Your task to perform on an android device: Go to accessibility settings Image 0: 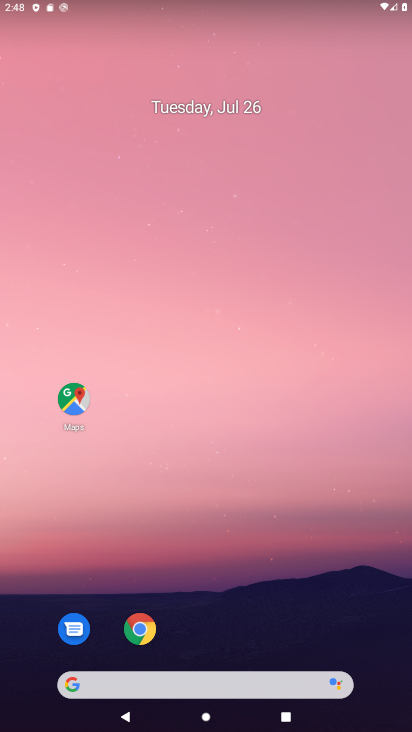
Step 0: press home button
Your task to perform on an android device: Go to accessibility settings Image 1: 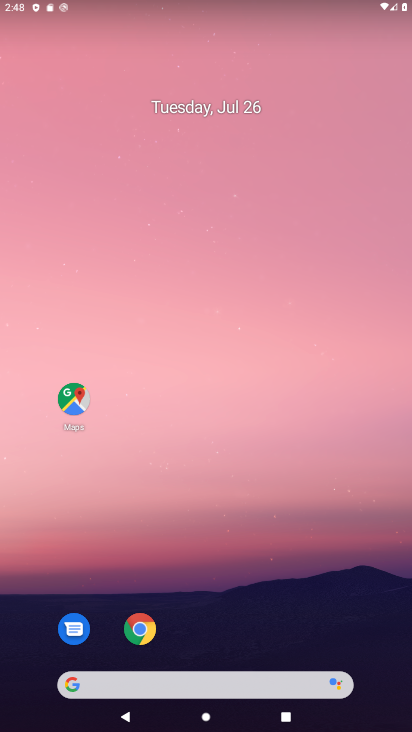
Step 1: drag from (330, 611) to (213, 7)
Your task to perform on an android device: Go to accessibility settings Image 2: 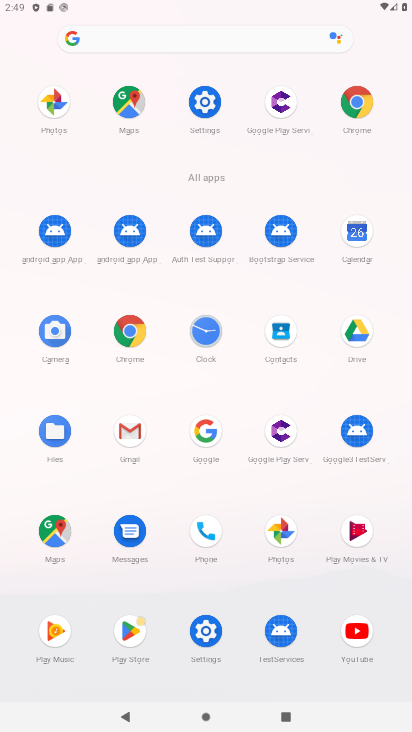
Step 2: click (212, 641)
Your task to perform on an android device: Go to accessibility settings Image 3: 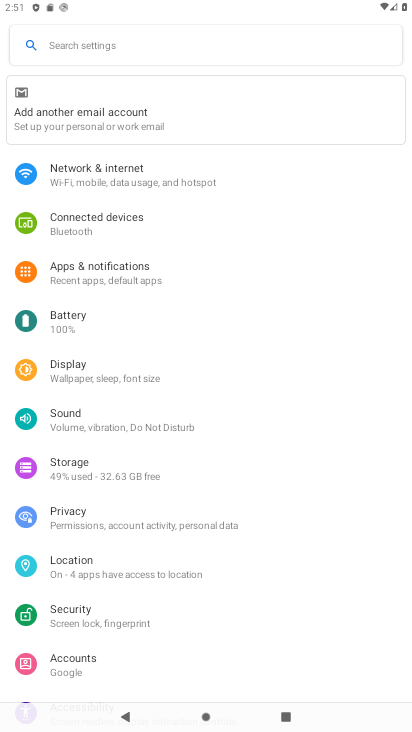
Step 3: drag from (98, 549) to (102, 123)
Your task to perform on an android device: Go to accessibility settings Image 4: 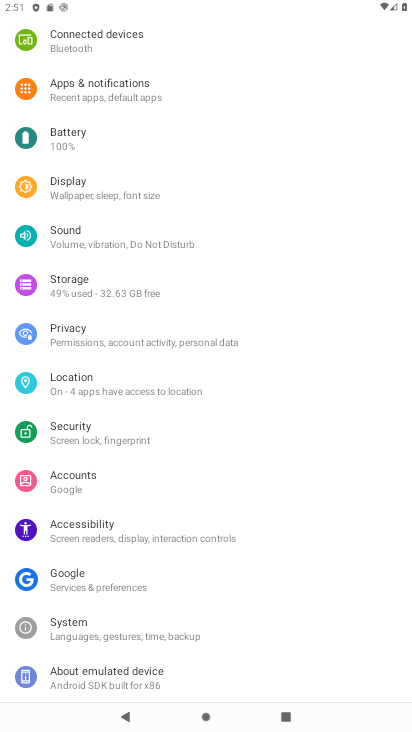
Step 4: click (103, 540)
Your task to perform on an android device: Go to accessibility settings Image 5: 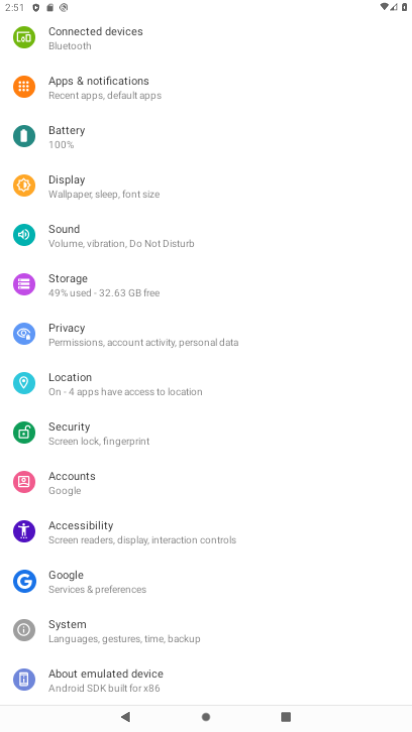
Step 5: task complete